Your task to perform on an android device: read, delete, or share a saved page in the chrome app Image 0: 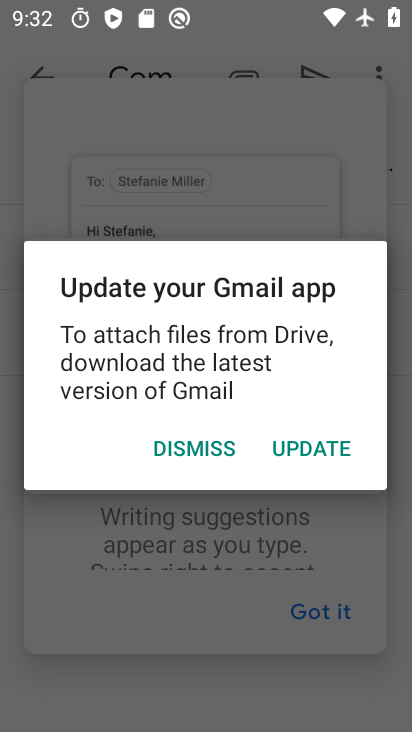
Step 0: press home button
Your task to perform on an android device: read, delete, or share a saved page in the chrome app Image 1: 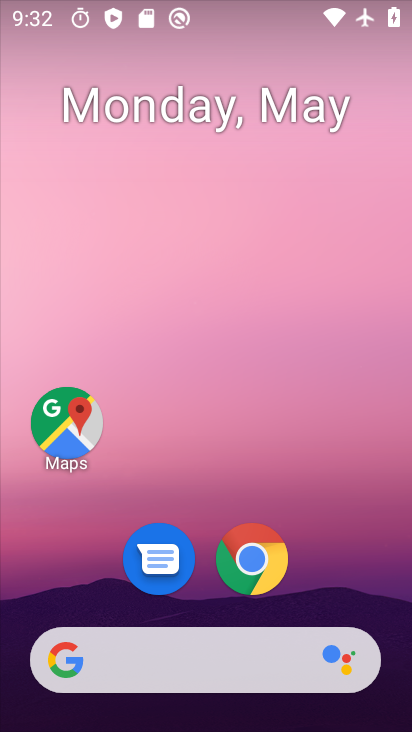
Step 1: click (252, 560)
Your task to perform on an android device: read, delete, or share a saved page in the chrome app Image 2: 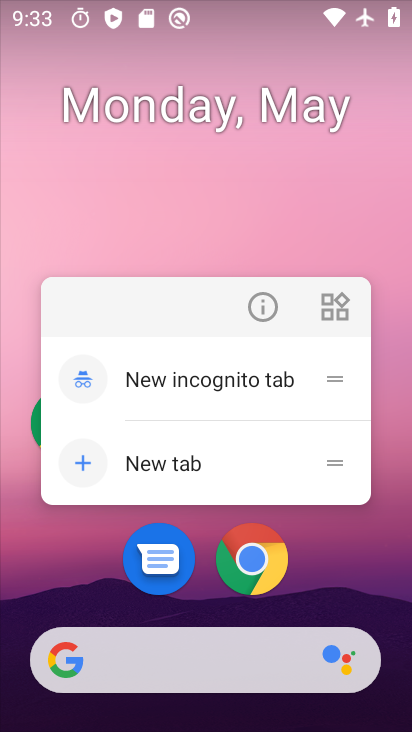
Step 2: click (256, 551)
Your task to perform on an android device: read, delete, or share a saved page in the chrome app Image 3: 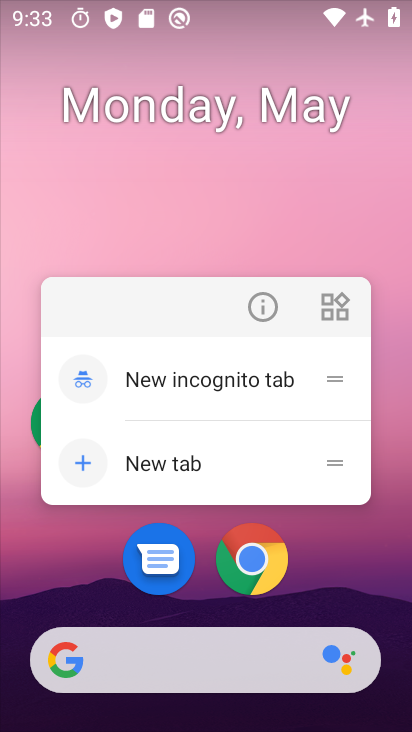
Step 3: click (257, 551)
Your task to perform on an android device: read, delete, or share a saved page in the chrome app Image 4: 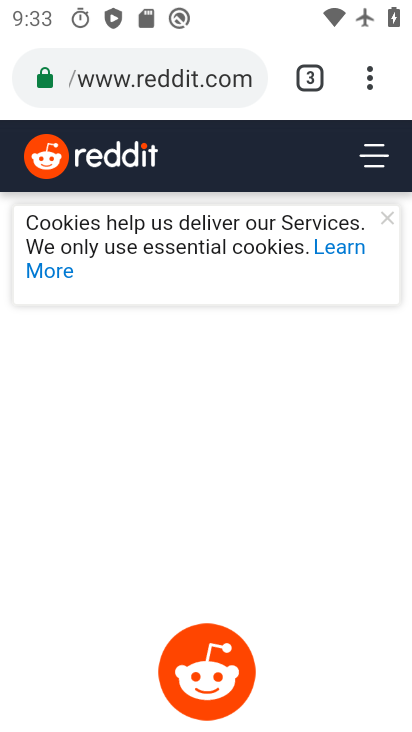
Step 4: click (364, 67)
Your task to perform on an android device: read, delete, or share a saved page in the chrome app Image 5: 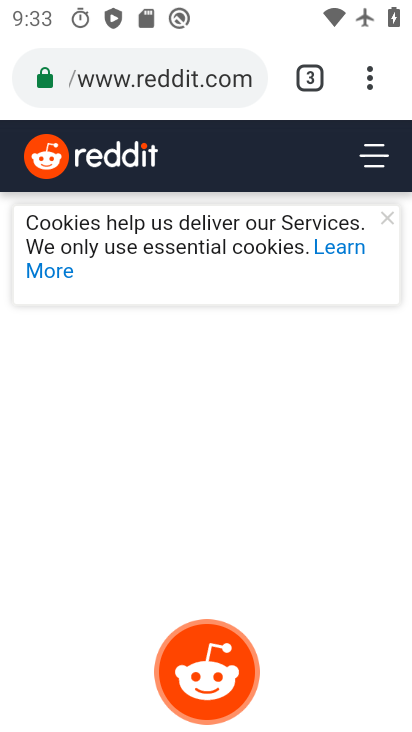
Step 5: click (369, 107)
Your task to perform on an android device: read, delete, or share a saved page in the chrome app Image 6: 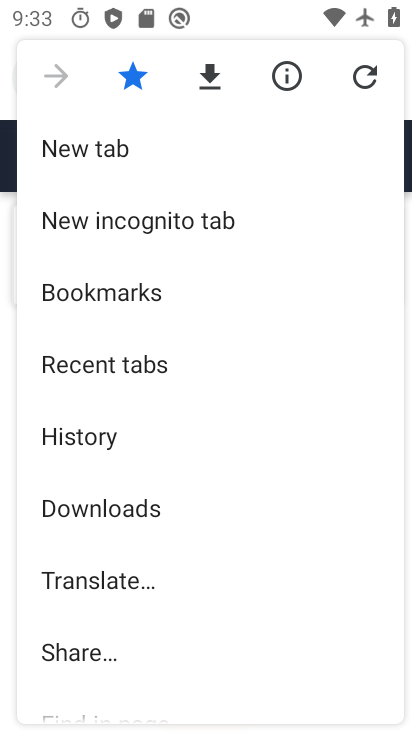
Step 6: click (110, 496)
Your task to perform on an android device: read, delete, or share a saved page in the chrome app Image 7: 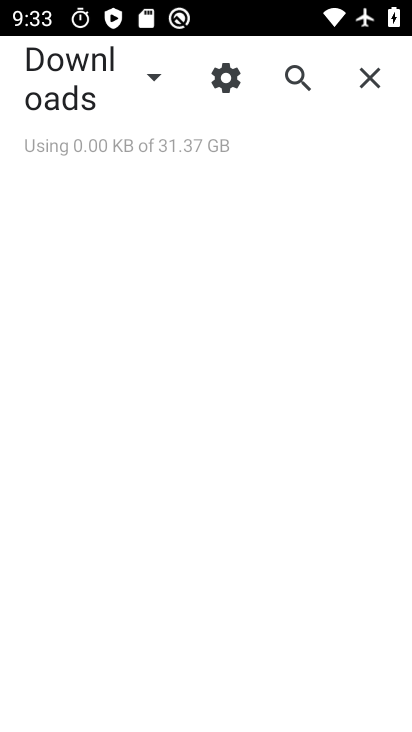
Step 7: click (154, 71)
Your task to perform on an android device: read, delete, or share a saved page in the chrome app Image 8: 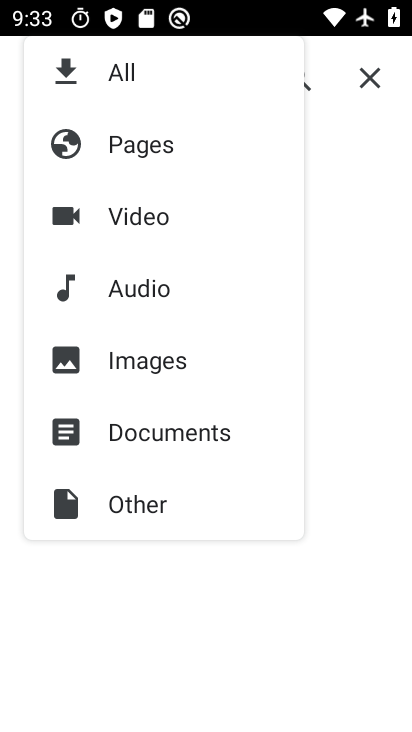
Step 8: click (123, 135)
Your task to perform on an android device: read, delete, or share a saved page in the chrome app Image 9: 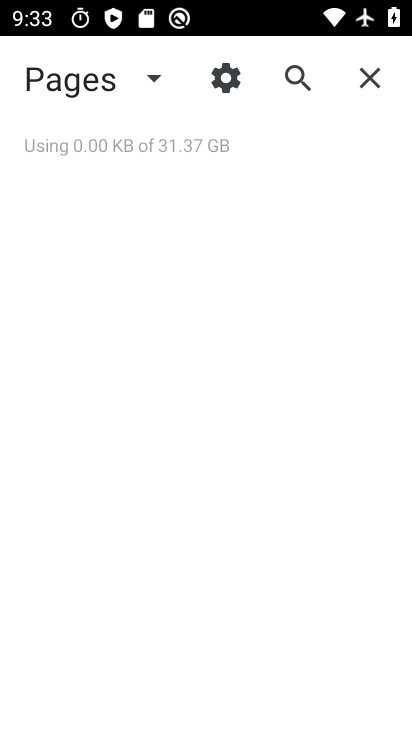
Step 9: task complete